Your task to perform on an android device: Go to Android settings Image 0: 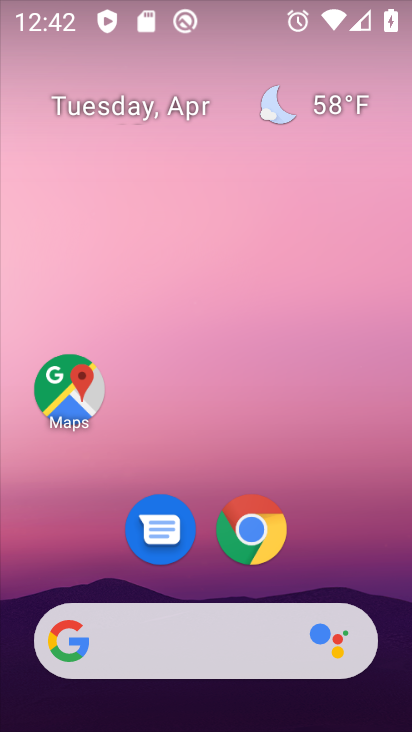
Step 0: drag from (401, 630) to (259, 79)
Your task to perform on an android device: Go to Android settings Image 1: 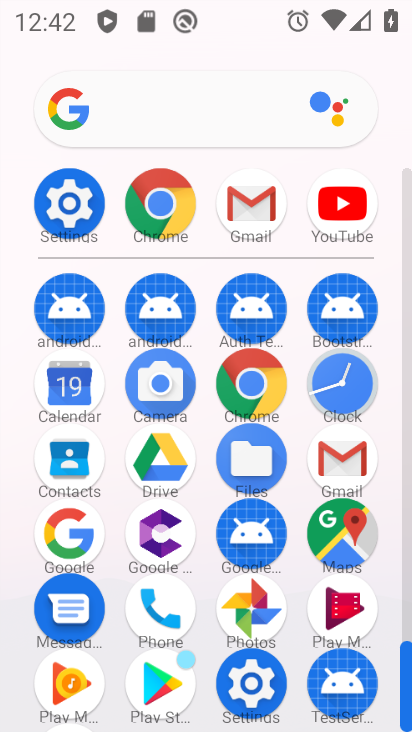
Step 1: click (79, 211)
Your task to perform on an android device: Go to Android settings Image 2: 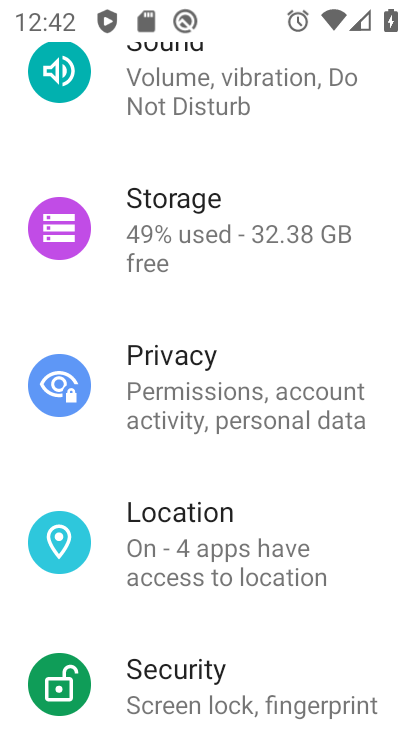
Step 2: drag from (98, 671) to (236, 62)
Your task to perform on an android device: Go to Android settings Image 3: 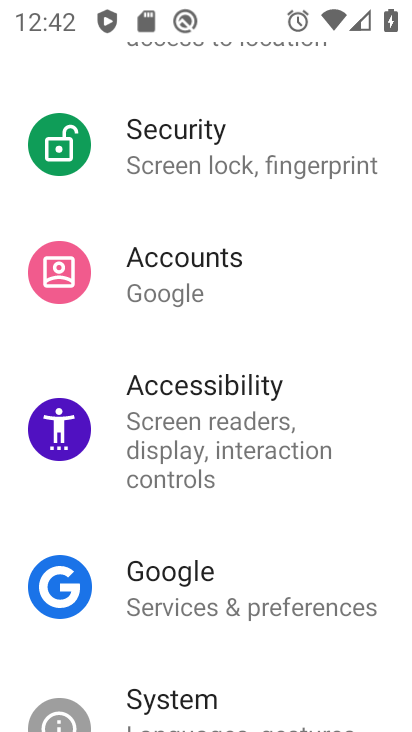
Step 3: drag from (150, 641) to (304, 40)
Your task to perform on an android device: Go to Android settings Image 4: 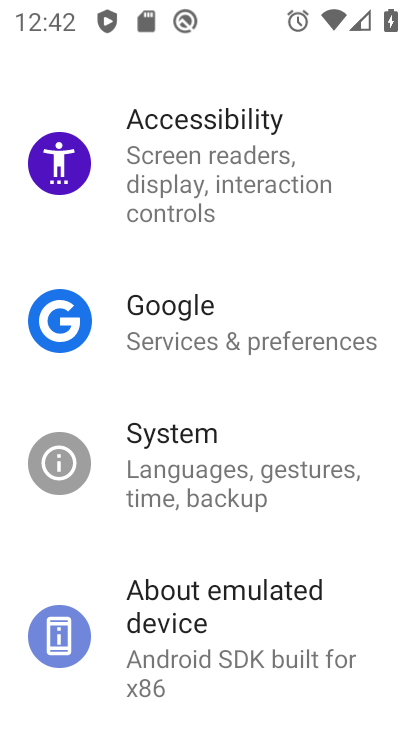
Step 4: click (219, 631)
Your task to perform on an android device: Go to Android settings Image 5: 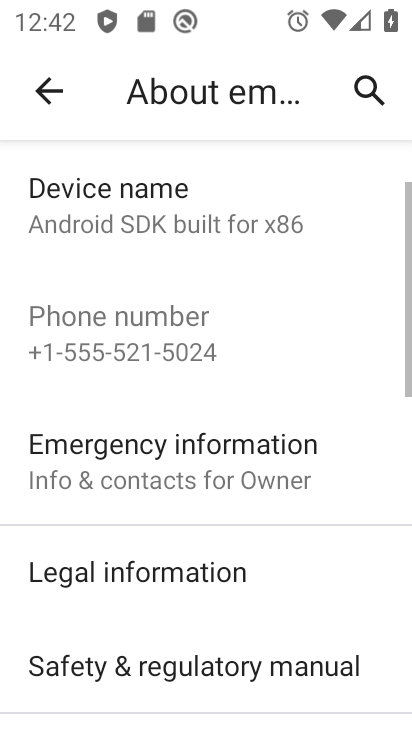
Step 5: drag from (219, 626) to (294, 200)
Your task to perform on an android device: Go to Android settings Image 6: 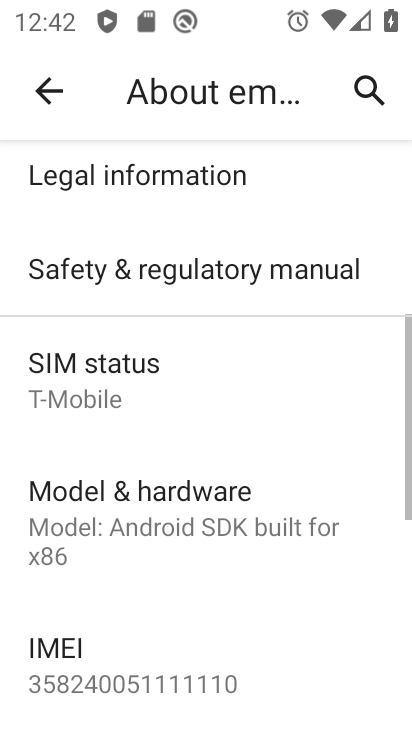
Step 6: drag from (149, 598) to (252, 226)
Your task to perform on an android device: Go to Android settings Image 7: 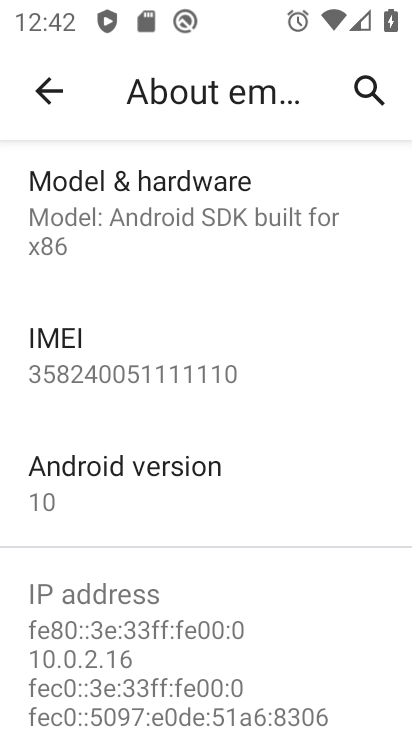
Step 7: click (177, 472)
Your task to perform on an android device: Go to Android settings Image 8: 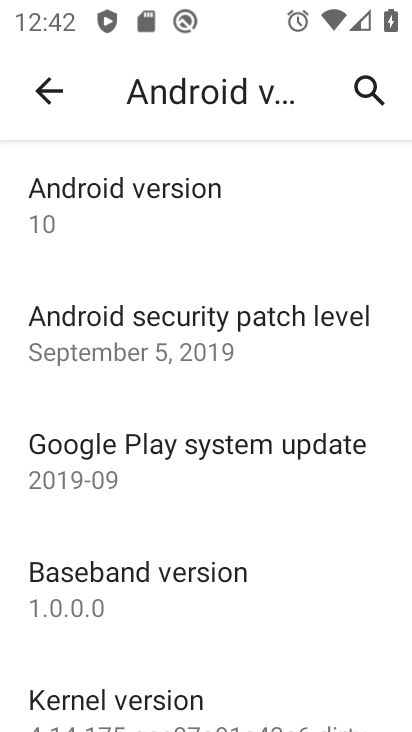
Step 8: task complete